Your task to perform on an android device: What's on my calendar tomorrow? Image 0: 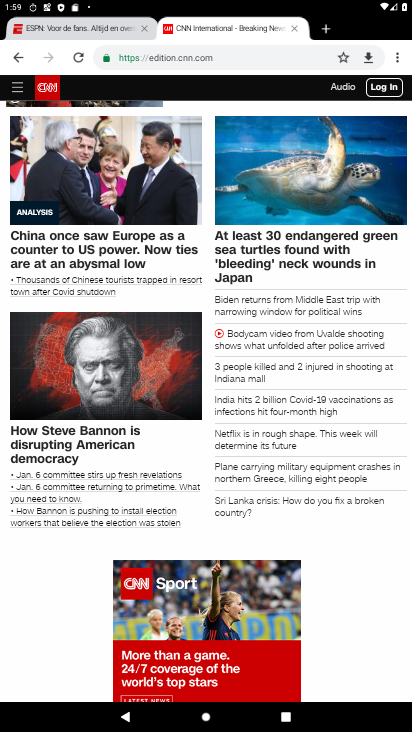
Step 0: press home button
Your task to perform on an android device: What's on my calendar tomorrow? Image 1: 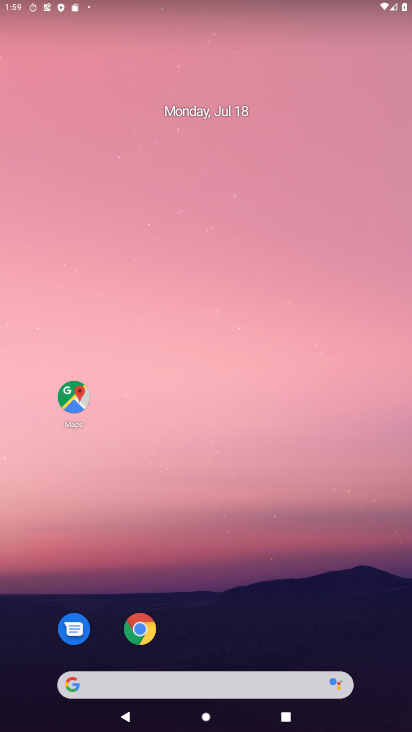
Step 1: drag from (225, 648) to (192, 128)
Your task to perform on an android device: What's on my calendar tomorrow? Image 2: 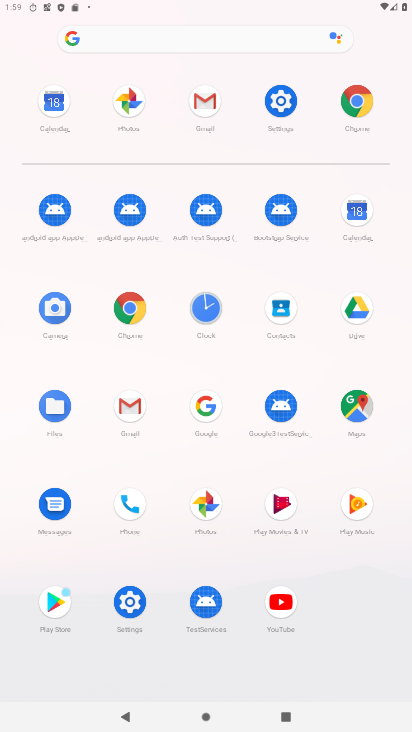
Step 2: click (355, 207)
Your task to perform on an android device: What's on my calendar tomorrow? Image 3: 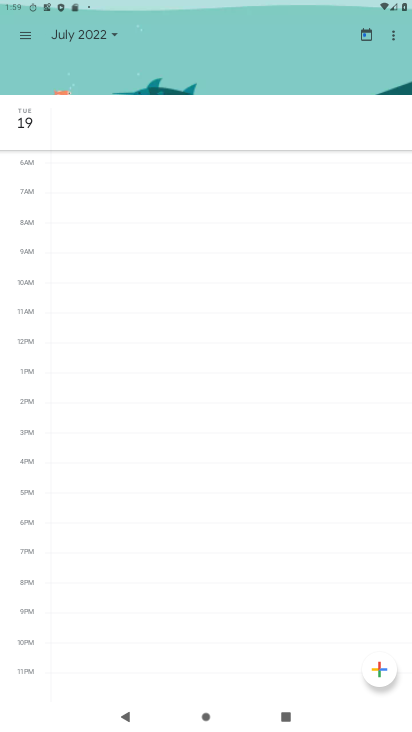
Step 3: task complete